Your task to perform on an android device: turn on showing notifications on the lock screen Image 0: 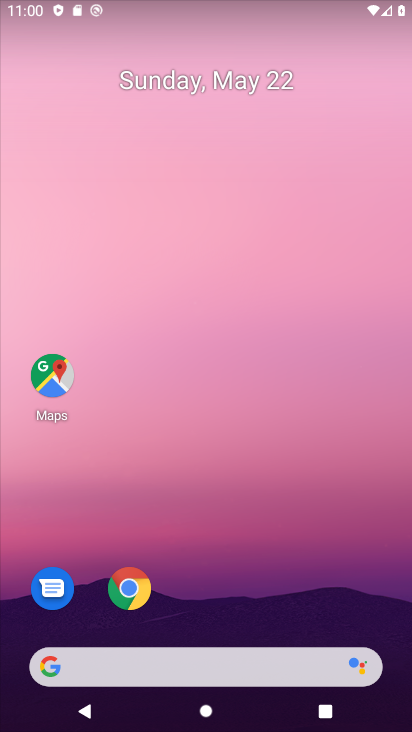
Step 0: drag from (180, 626) to (229, 286)
Your task to perform on an android device: turn on showing notifications on the lock screen Image 1: 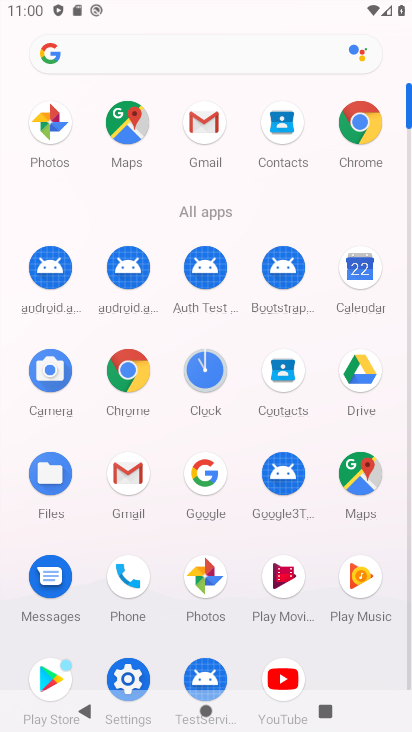
Step 1: click (131, 678)
Your task to perform on an android device: turn on showing notifications on the lock screen Image 2: 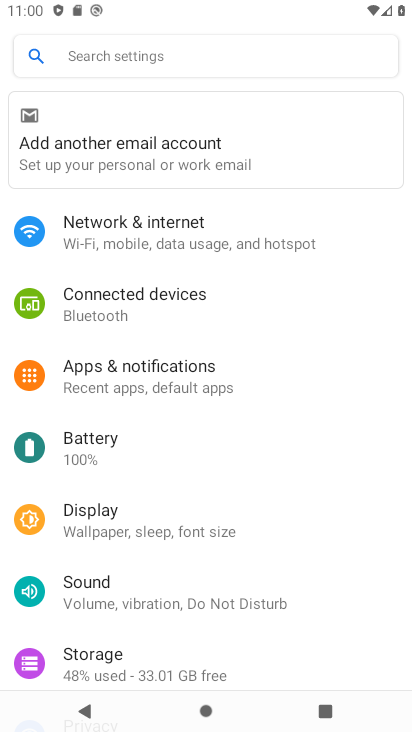
Step 2: drag from (131, 657) to (162, 325)
Your task to perform on an android device: turn on showing notifications on the lock screen Image 3: 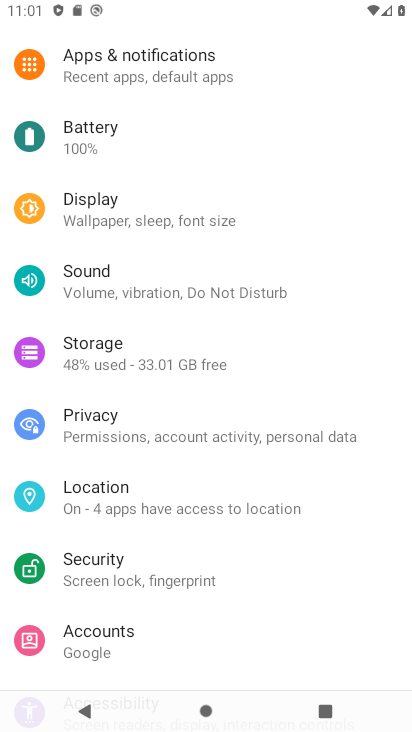
Step 3: click (110, 425)
Your task to perform on an android device: turn on showing notifications on the lock screen Image 4: 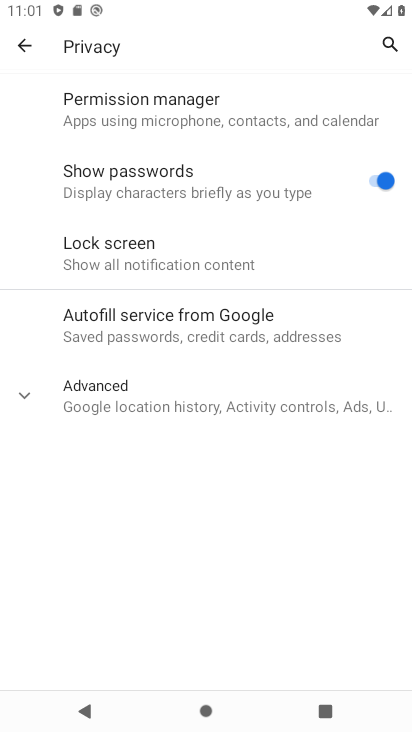
Step 4: click (127, 401)
Your task to perform on an android device: turn on showing notifications on the lock screen Image 5: 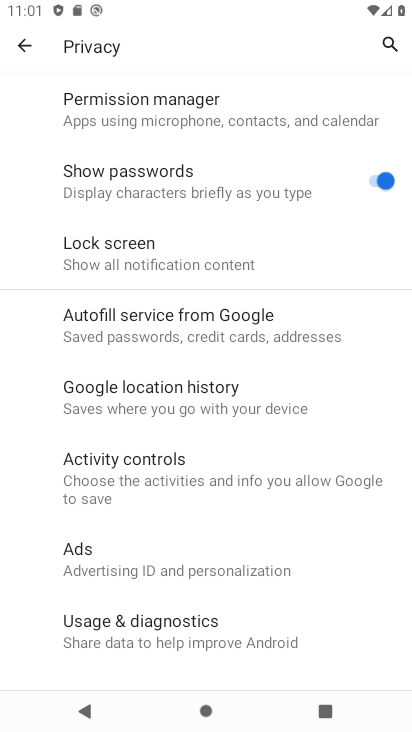
Step 5: click (215, 253)
Your task to perform on an android device: turn on showing notifications on the lock screen Image 6: 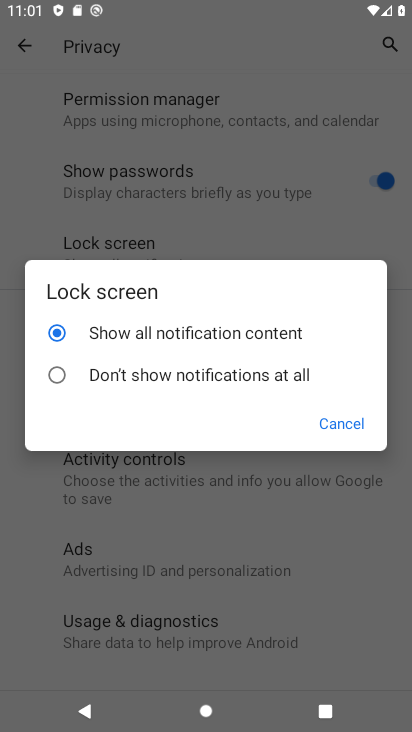
Step 6: task complete